Your task to perform on an android device: Open settings Image 0: 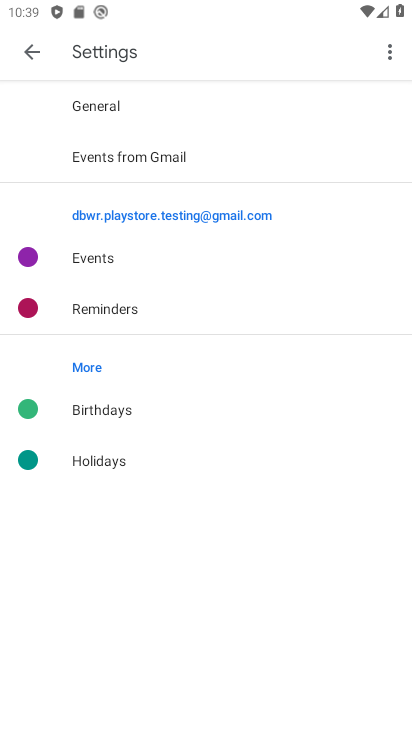
Step 0: drag from (180, 9) to (180, 713)
Your task to perform on an android device: Open settings Image 1: 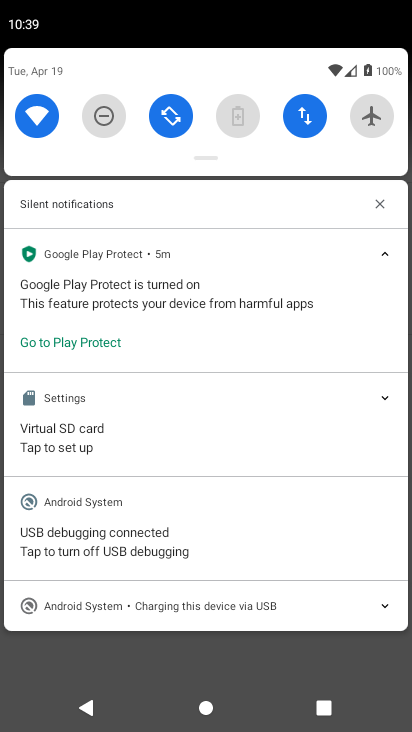
Step 1: drag from (247, 140) to (300, 615)
Your task to perform on an android device: Open settings Image 2: 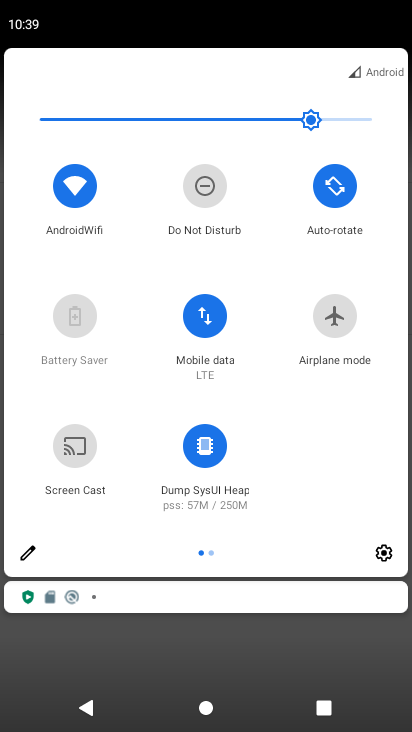
Step 2: click (389, 561)
Your task to perform on an android device: Open settings Image 3: 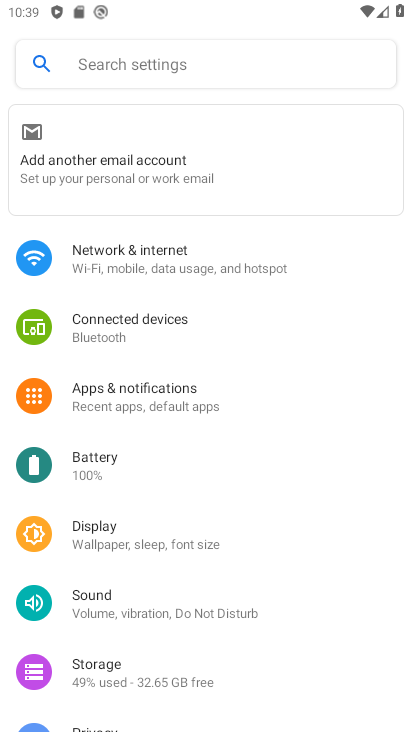
Step 3: task complete